Your task to perform on an android device: allow cookies in the chrome app Image 0: 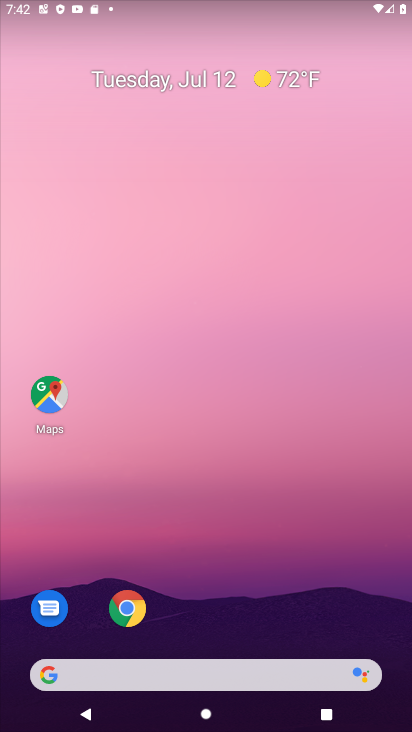
Step 0: drag from (360, 611) to (376, 141)
Your task to perform on an android device: allow cookies in the chrome app Image 1: 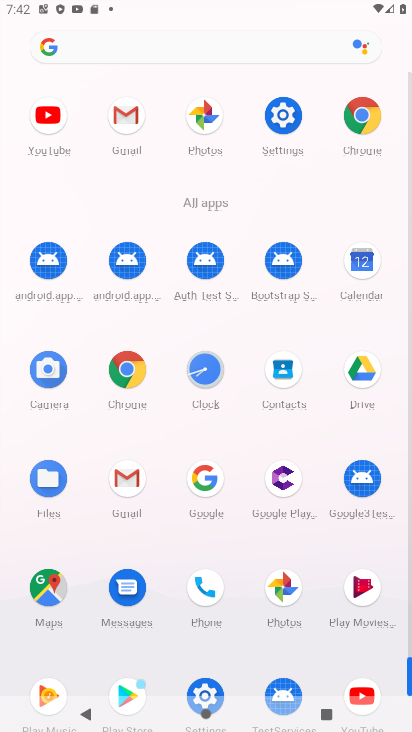
Step 1: click (132, 371)
Your task to perform on an android device: allow cookies in the chrome app Image 2: 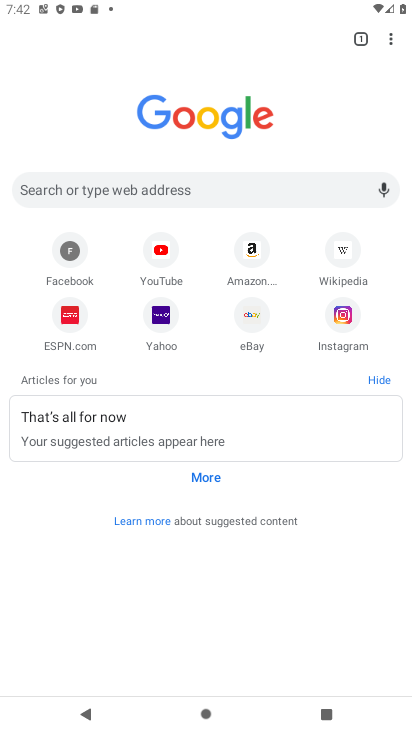
Step 2: click (392, 40)
Your task to perform on an android device: allow cookies in the chrome app Image 3: 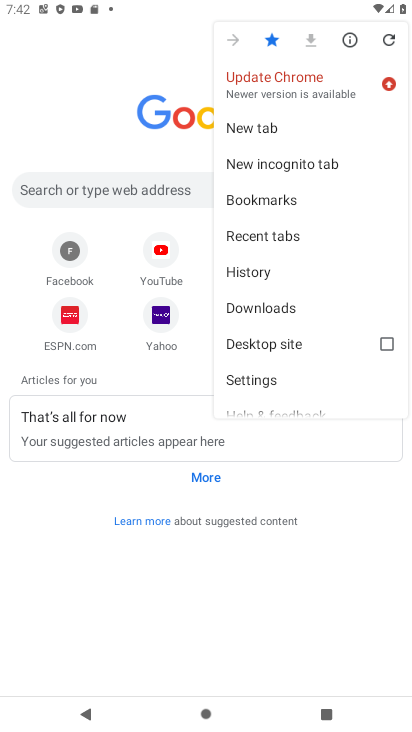
Step 3: click (281, 380)
Your task to perform on an android device: allow cookies in the chrome app Image 4: 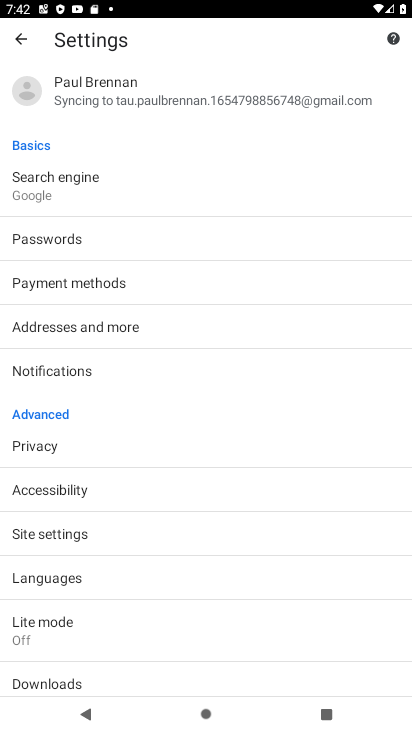
Step 4: drag from (320, 452) to (323, 374)
Your task to perform on an android device: allow cookies in the chrome app Image 5: 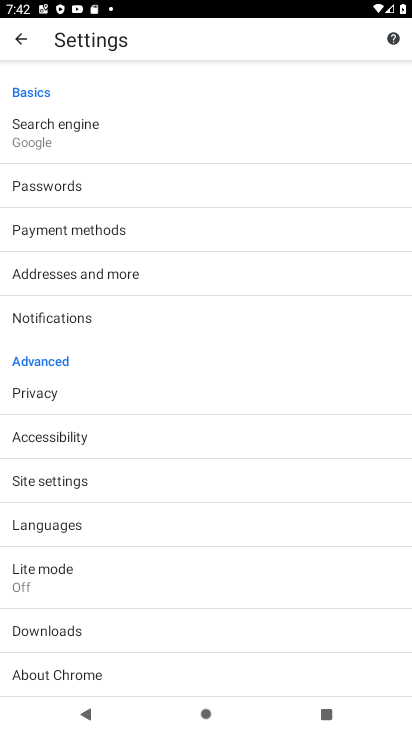
Step 5: drag from (332, 463) to (334, 365)
Your task to perform on an android device: allow cookies in the chrome app Image 6: 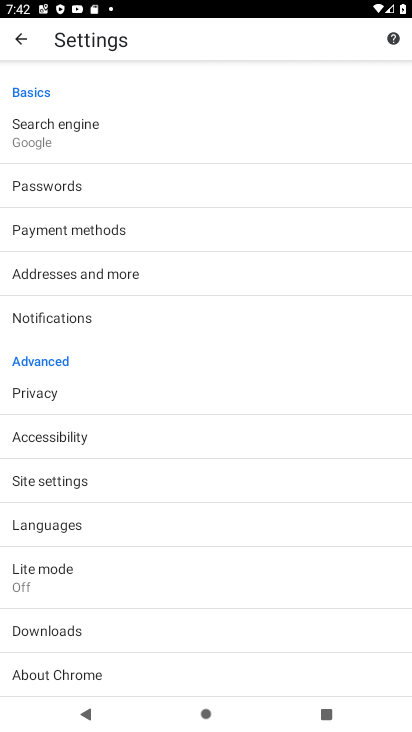
Step 6: drag from (319, 246) to (314, 333)
Your task to perform on an android device: allow cookies in the chrome app Image 7: 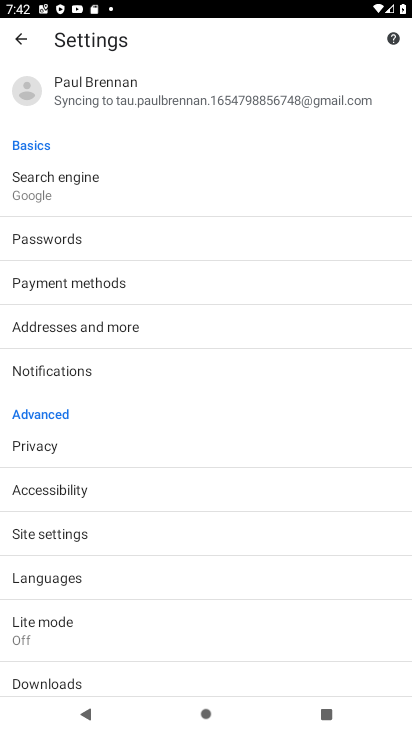
Step 7: drag from (316, 231) to (320, 335)
Your task to perform on an android device: allow cookies in the chrome app Image 8: 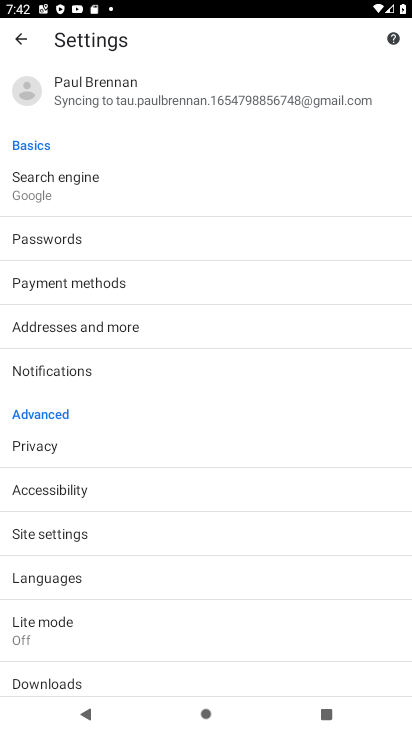
Step 8: drag from (311, 387) to (318, 285)
Your task to perform on an android device: allow cookies in the chrome app Image 9: 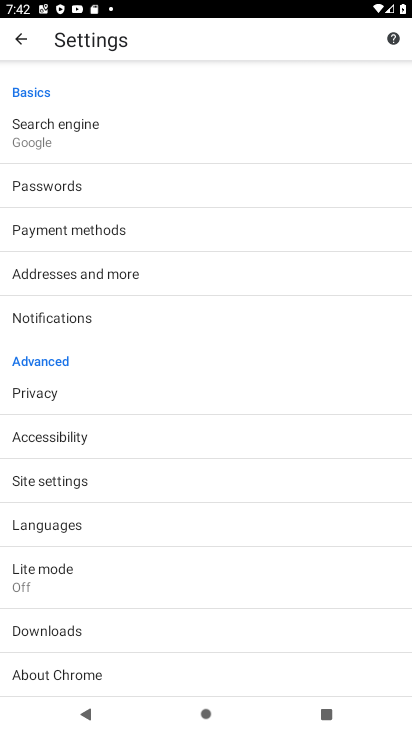
Step 9: drag from (316, 391) to (316, 265)
Your task to perform on an android device: allow cookies in the chrome app Image 10: 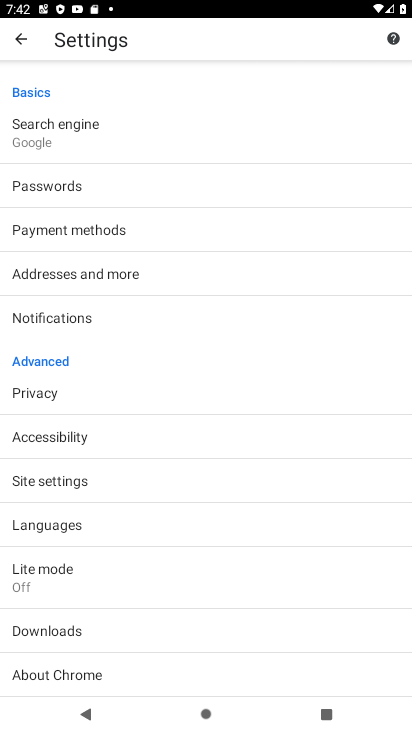
Step 10: click (321, 482)
Your task to perform on an android device: allow cookies in the chrome app Image 11: 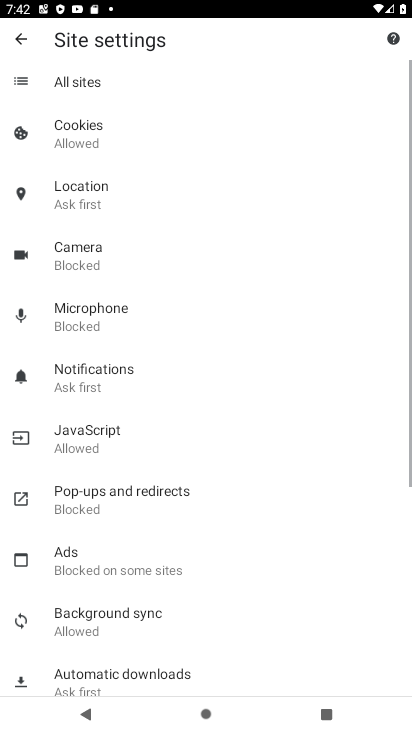
Step 11: drag from (321, 482) to (319, 361)
Your task to perform on an android device: allow cookies in the chrome app Image 12: 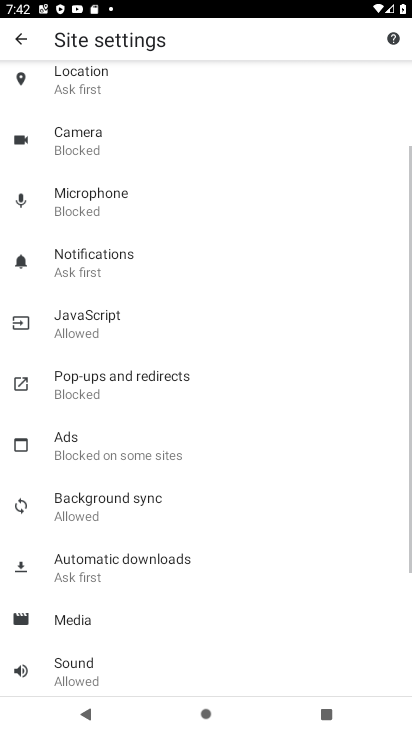
Step 12: drag from (319, 451) to (320, 325)
Your task to perform on an android device: allow cookies in the chrome app Image 13: 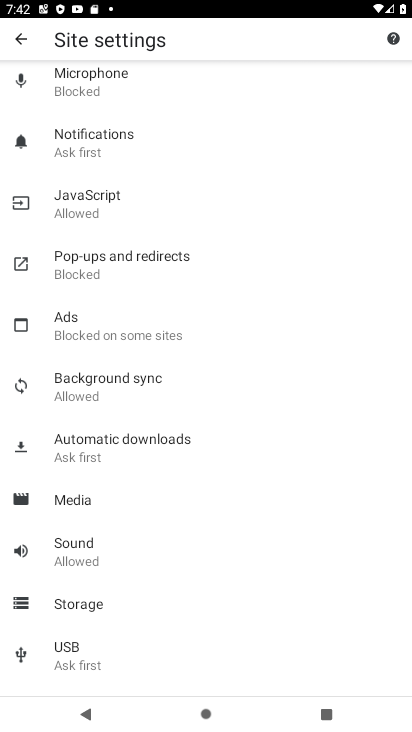
Step 13: drag from (315, 465) to (305, 314)
Your task to perform on an android device: allow cookies in the chrome app Image 14: 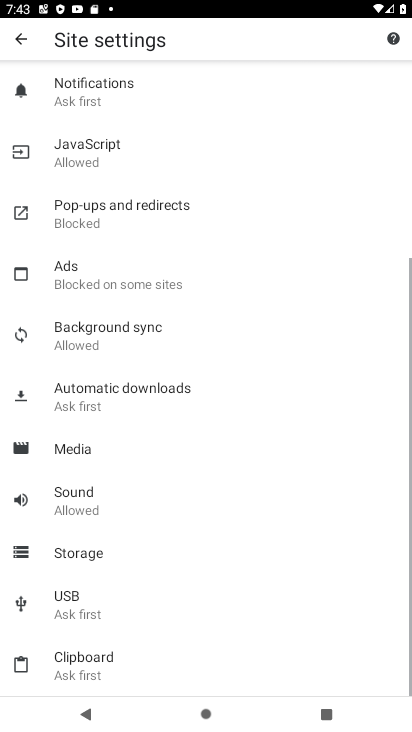
Step 14: drag from (312, 240) to (318, 305)
Your task to perform on an android device: allow cookies in the chrome app Image 15: 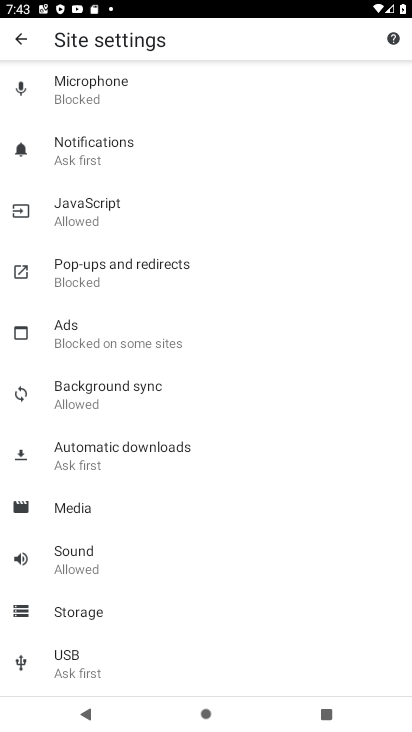
Step 15: drag from (331, 244) to (332, 333)
Your task to perform on an android device: allow cookies in the chrome app Image 16: 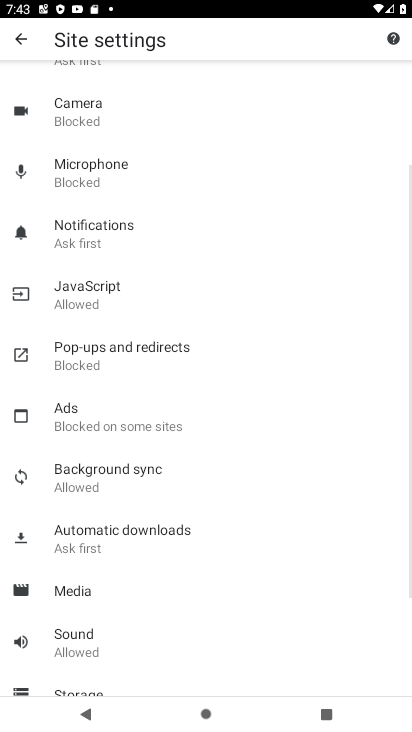
Step 16: drag from (332, 262) to (327, 366)
Your task to perform on an android device: allow cookies in the chrome app Image 17: 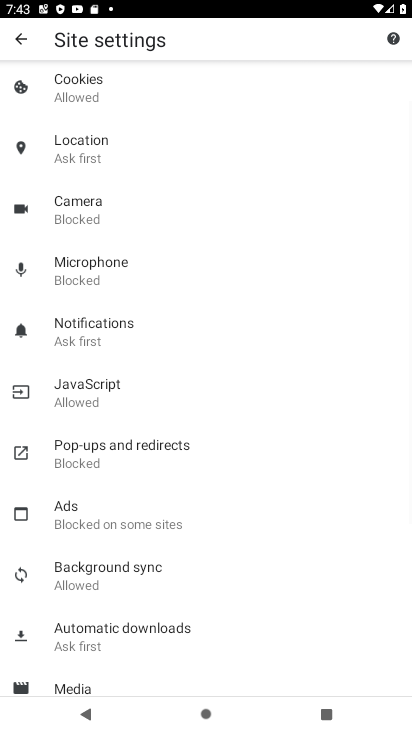
Step 17: drag from (324, 257) to (317, 420)
Your task to perform on an android device: allow cookies in the chrome app Image 18: 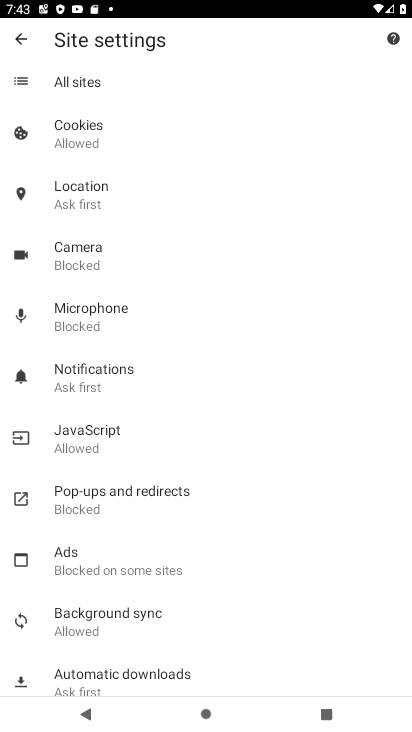
Step 18: click (139, 136)
Your task to perform on an android device: allow cookies in the chrome app Image 19: 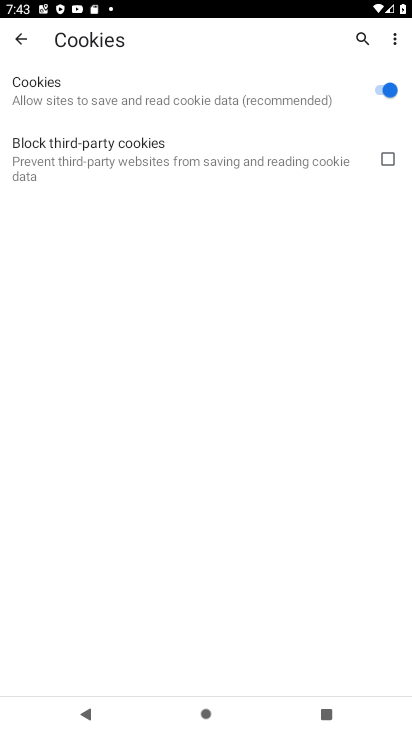
Step 19: task complete